Your task to perform on an android device: Go to Reddit.com Image 0: 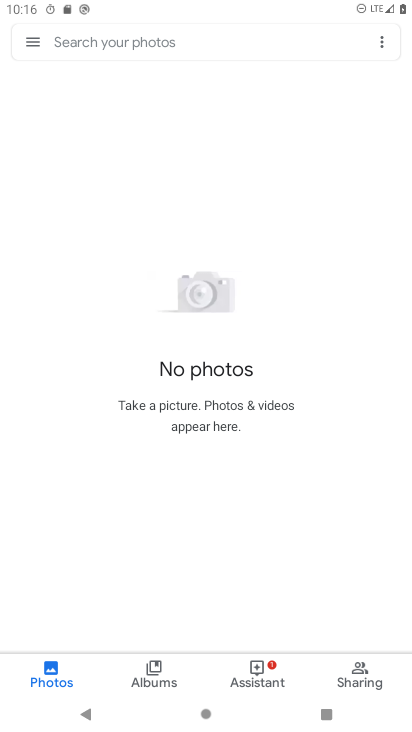
Step 0: press home button
Your task to perform on an android device: Go to Reddit.com Image 1: 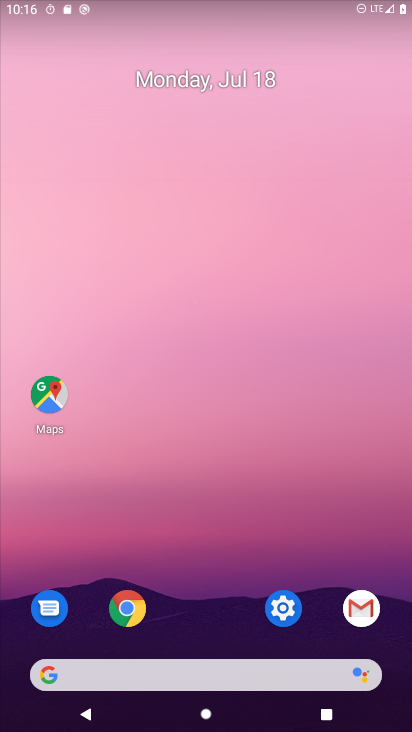
Step 1: click (134, 596)
Your task to perform on an android device: Go to Reddit.com Image 2: 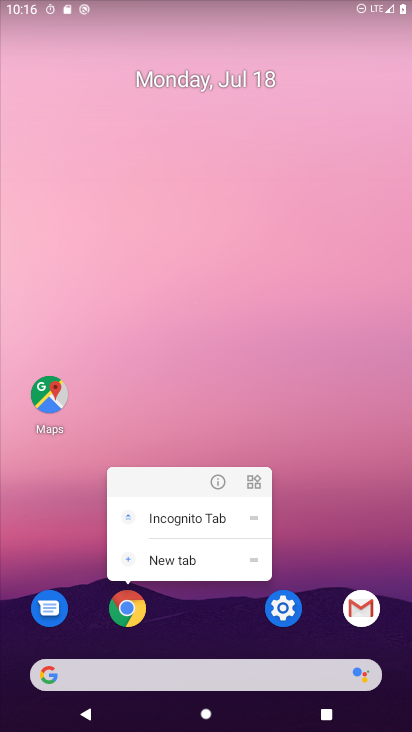
Step 2: click (126, 610)
Your task to perform on an android device: Go to Reddit.com Image 3: 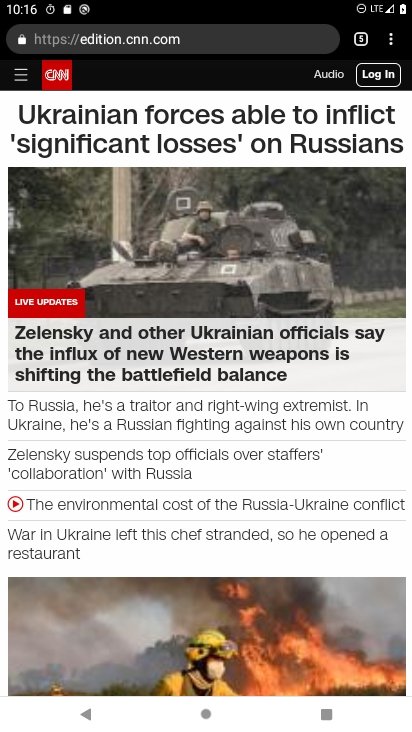
Step 3: click (127, 46)
Your task to perform on an android device: Go to Reddit.com Image 4: 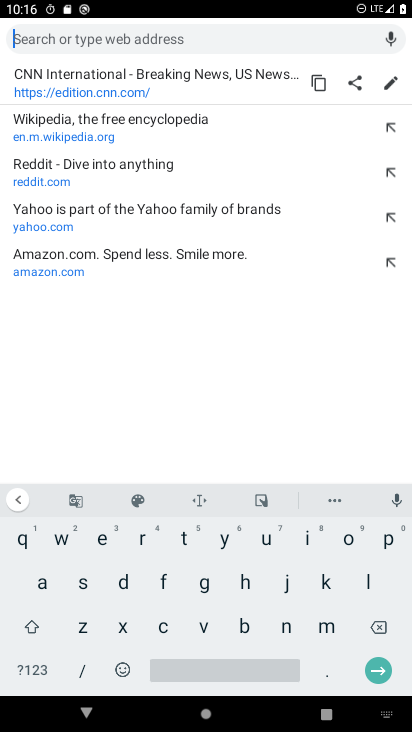
Step 4: click (82, 162)
Your task to perform on an android device: Go to Reddit.com Image 5: 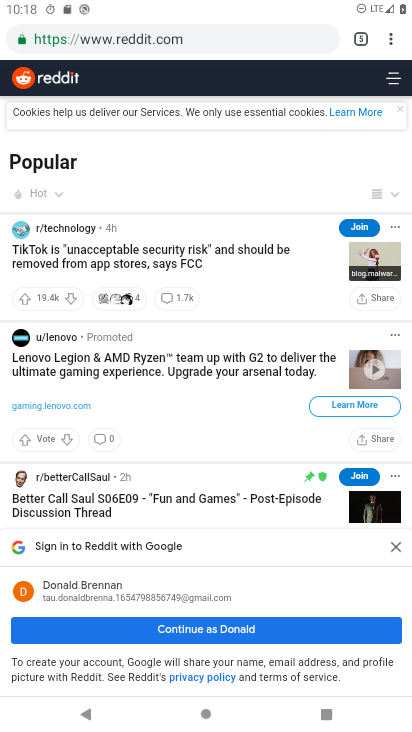
Step 5: task complete